Your task to perform on an android device: delete browsing data in the chrome app Image 0: 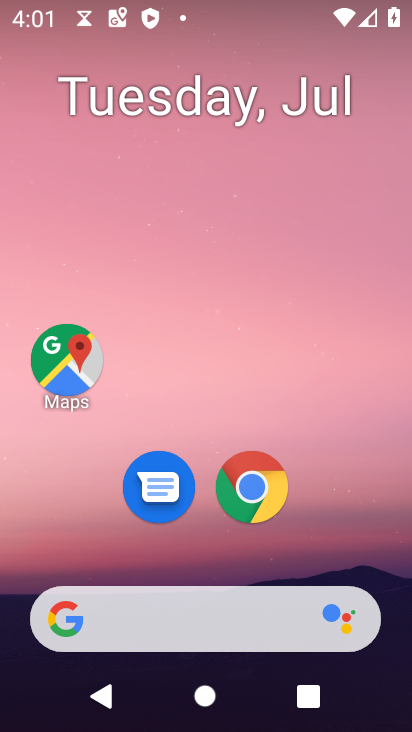
Step 0: click (266, 488)
Your task to perform on an android device: delete browsing data in the chrome app Image 1: 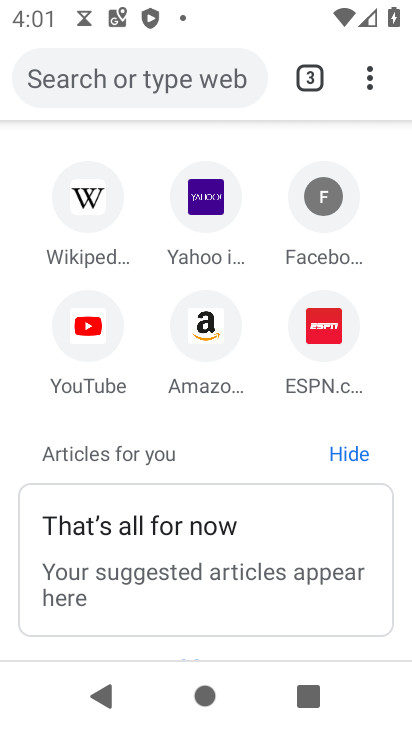
Step 1: drag from (371, 74) to (140, 444)
Your task to perform on an android device: delete browsing data in the chrome app Image 2: 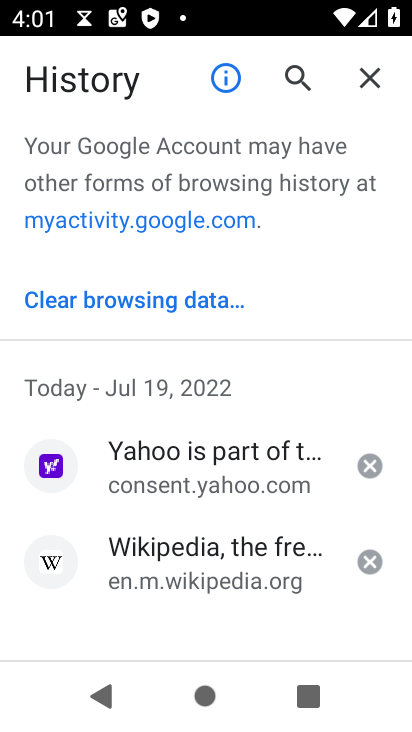
Step 2: click (125, 295)
Your task to perform on an android device: delete browsing data in the chrome app Image 3: 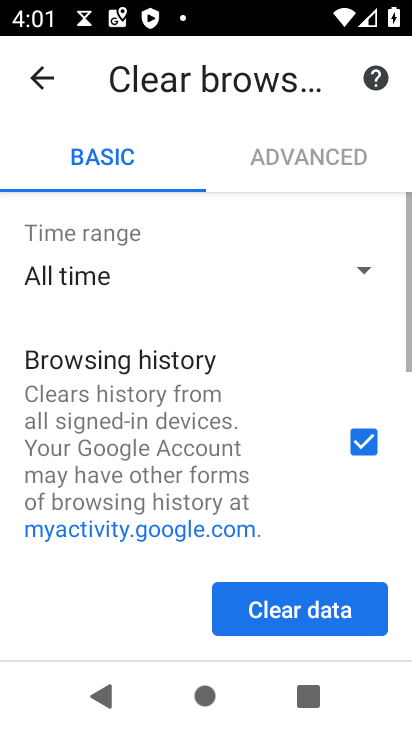
Step 3: drag from (123, 522) to (246, 99)
Your task to perform on an android device: delete browsing data in the chrome app Image 4: 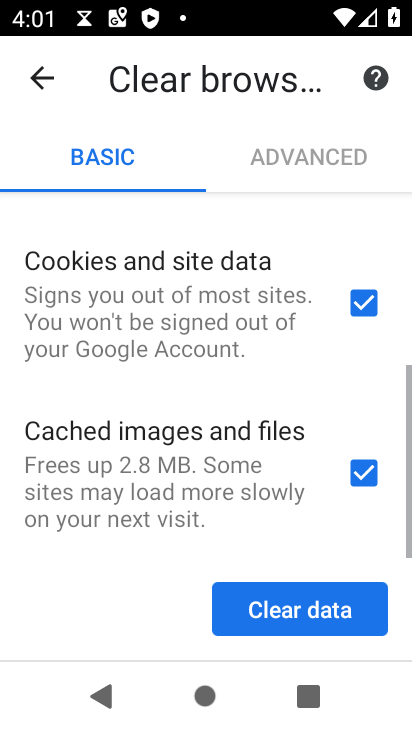
Step 4: click (284, 597)
Your task to perform on an android device: delete browsing data in the chrome app Image 5: 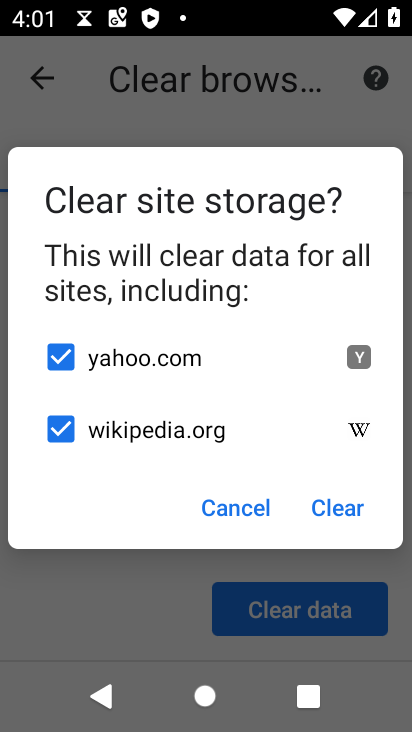
Step 5: click (345, 508)
Your task to perform on an android device: delete browsing data in the chrome app Image 6: 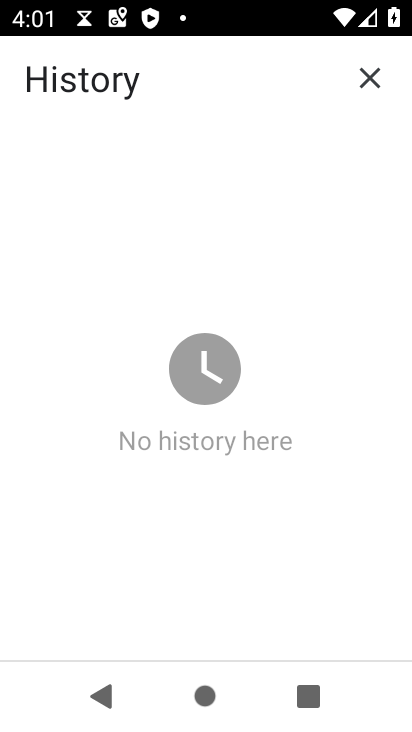
Step 6: task complete